Your task to perform on an android device: turn off translation in the chrome app Image 0: 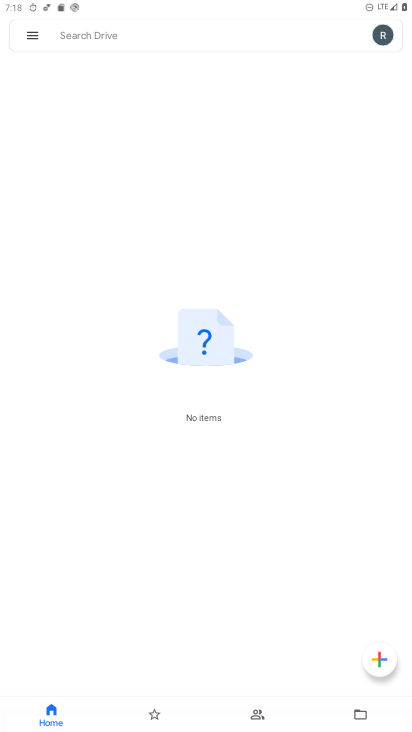
Step 0: press home button
Your task to perform on an android device: turn off translation in the chrome app Image 1: 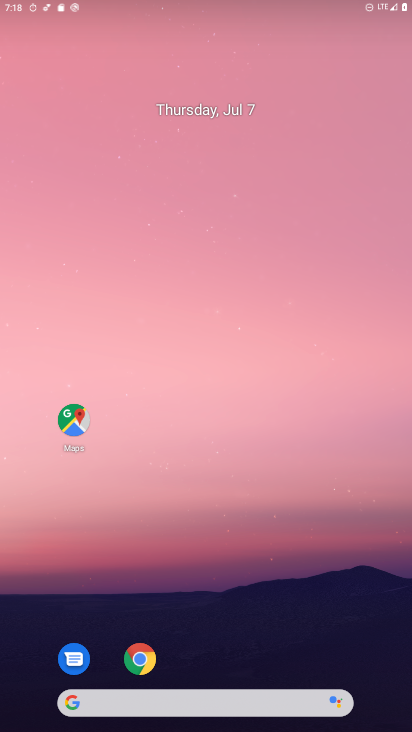
Step 1: drag from (404, 657) to (275, 48)
Your task to perform on an android device: turn off translation in the chrome app Image 2: 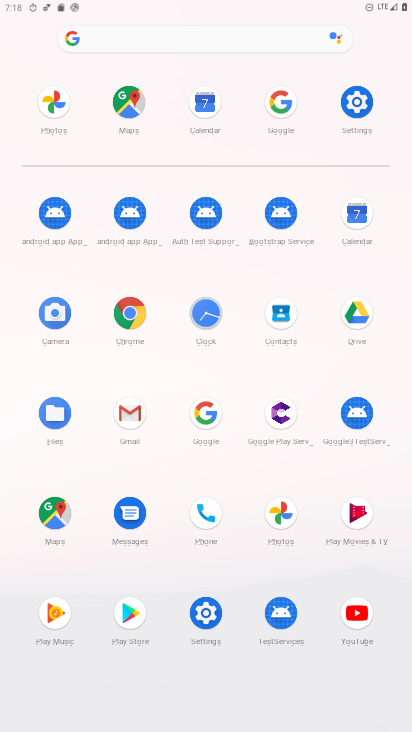
Step 2: click (139, 305)
Your task to perform on an android device: turn off translation in the chrome app Image 3: 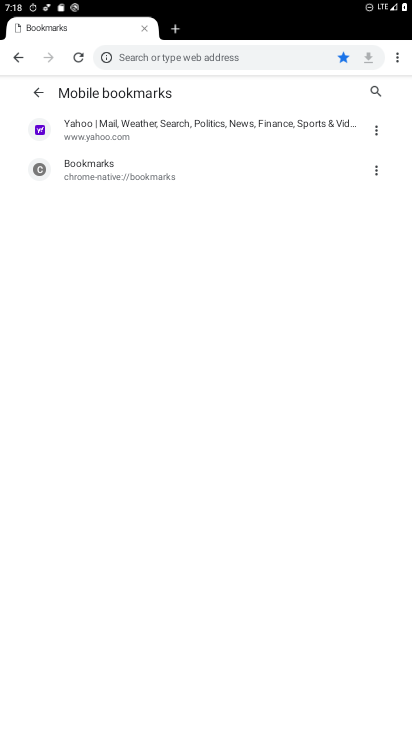
Step 3: click (398, 53)
Your task to perform on an android device: turn off translation in the chrome app Image 4: 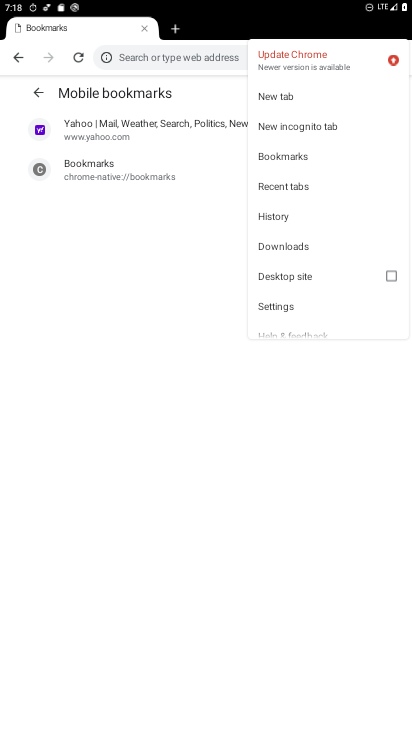
Step 4: click (290, 300)
Your task to perform on an android device: turn off translation in the chrome app Image 5: 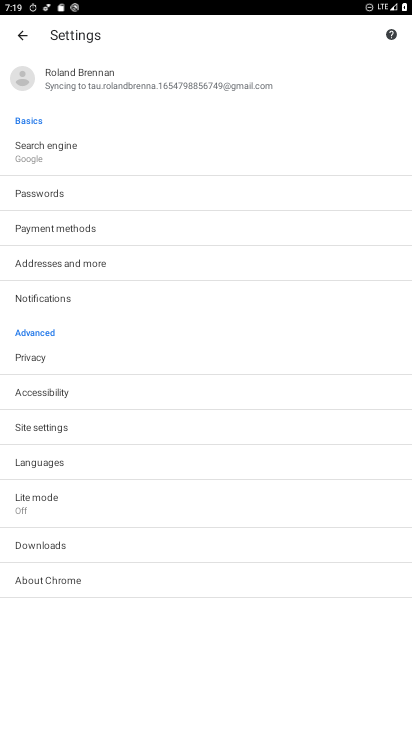
Step 5: click (62, 460)
Your task to perform on an android device: turn off translation in the chrome app Image 6: 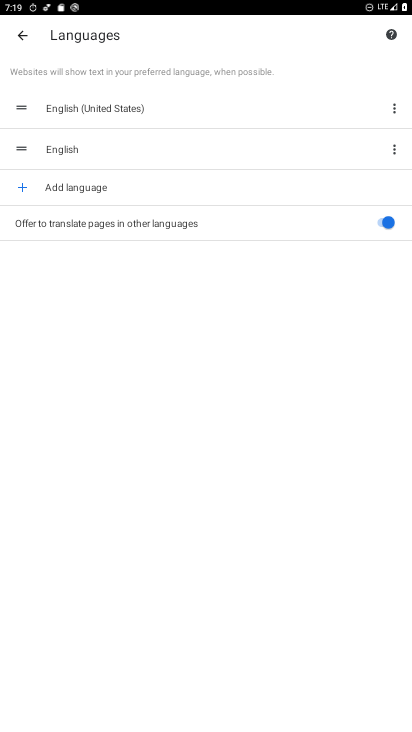
Step 6: click (363, 225)
Your task to perform on an android device: turn off translation in the chrome app Image 7: 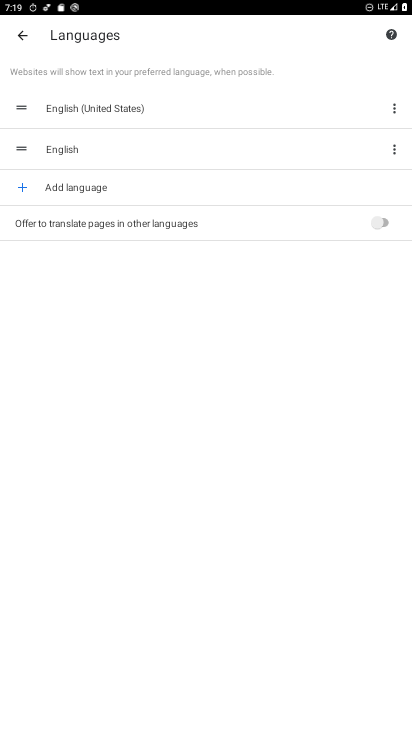
Step 7: task complete